Your task to perform on an android device: turn on data saver in the chrome app Image 0: 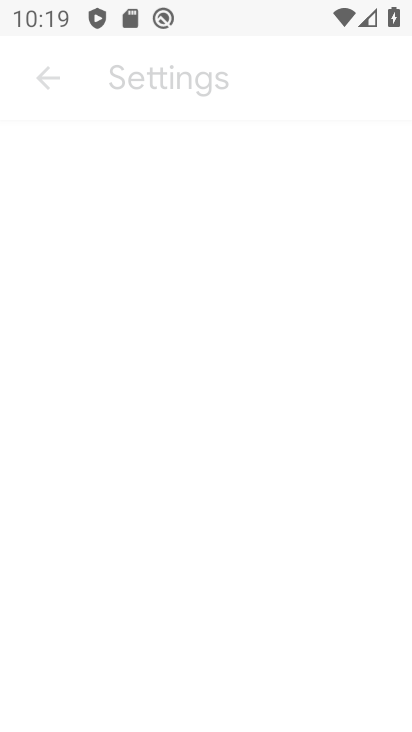
Step 0: drag from (168, 689) to (313, 143)
Your task to perform on an android device: turn on data saver in the chrome app Image 1: 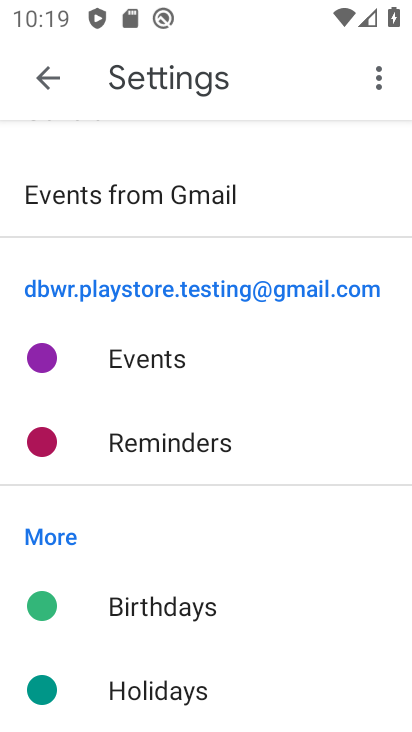
Step 1: press home button
Your task to perform on an android device: turn on data saver in the chrome app Image 2: 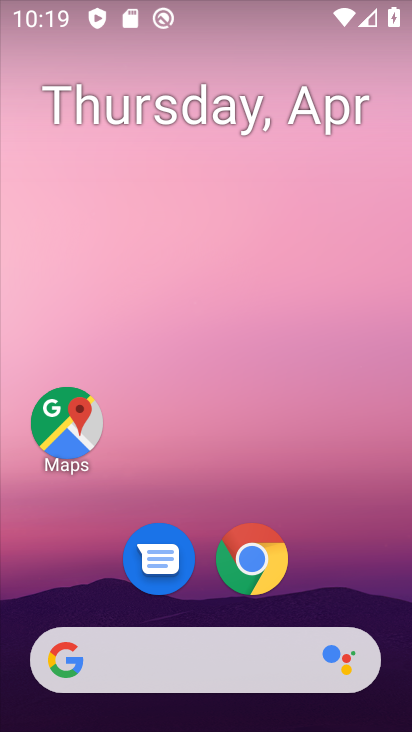
Step 2: drag from (196, 696) to (259, 5)
Your task to perform on an android device: turn on data saver in the chrome app Image 3: 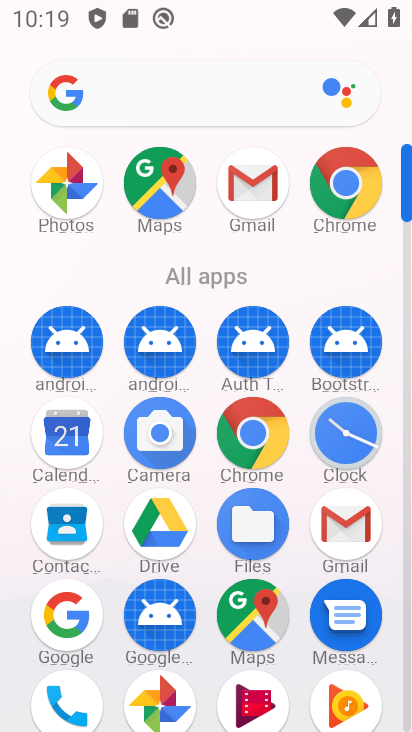
Step 3: click (367, 183)
Your task to perform on an android device: turn on data saver in the chrome app Image 4: 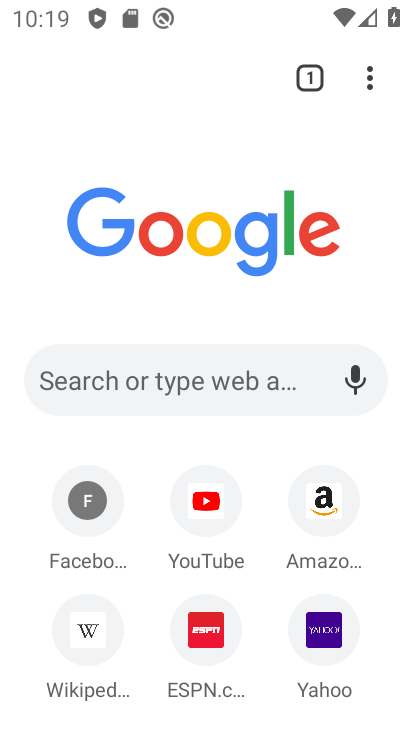
Step 4: click (363, 79)
Your task to perform on an android device: turn on data saver in the chrome app Image 5: 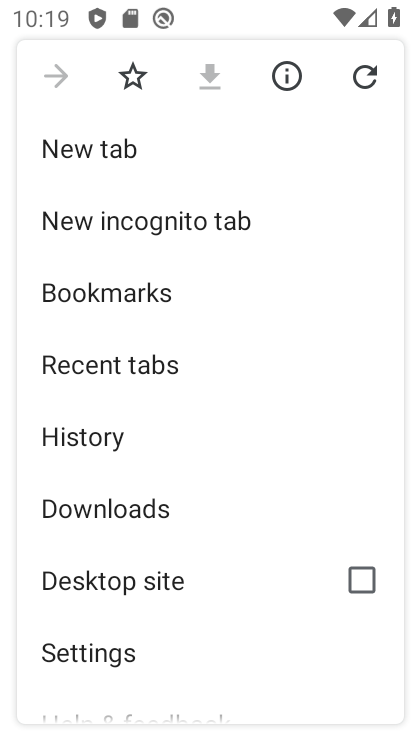
Step 5: click (100, 641)
Your task to perform on an android device: turn on data saver in the chrome app Image 6: 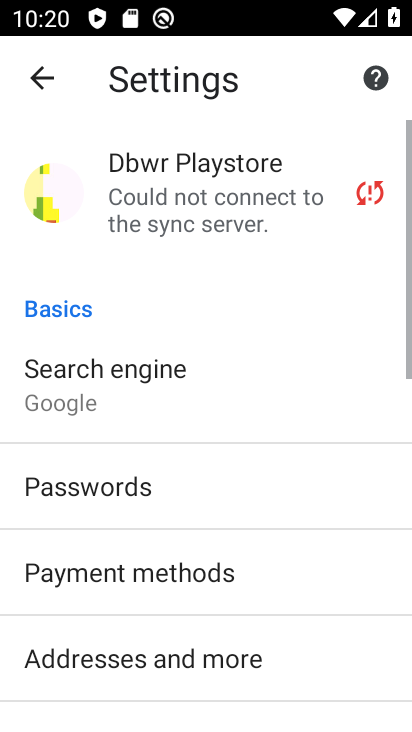
Step 6: drag from (100, 641) to (155, 190)
Your task to perform on an android device: turn on data saver in the chrome app Image 7: 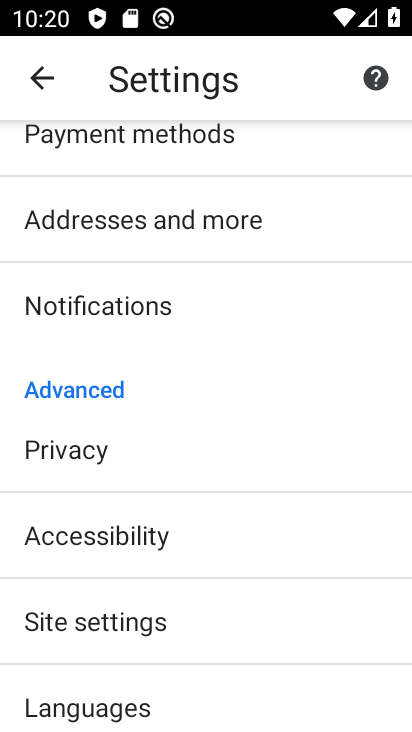
Step 7: drag from (98, 672) to (151, 471)
Your task to perform on an android device: turn on data saver in the chrome app Image 8: 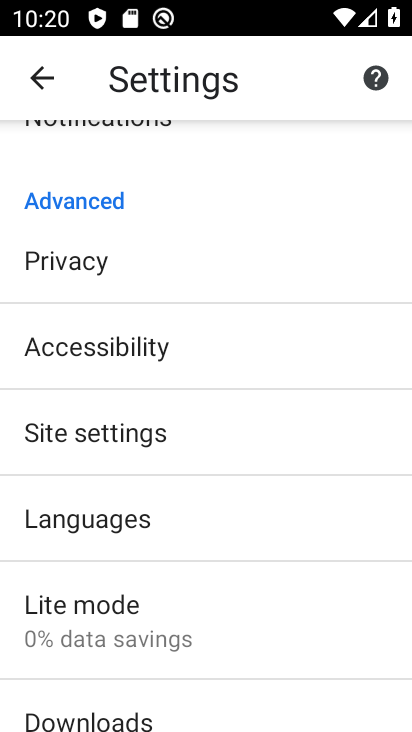
Step 8: click (69, 607)
Your task to perform on an android device: turn on data saver in the chrome app Image 9: 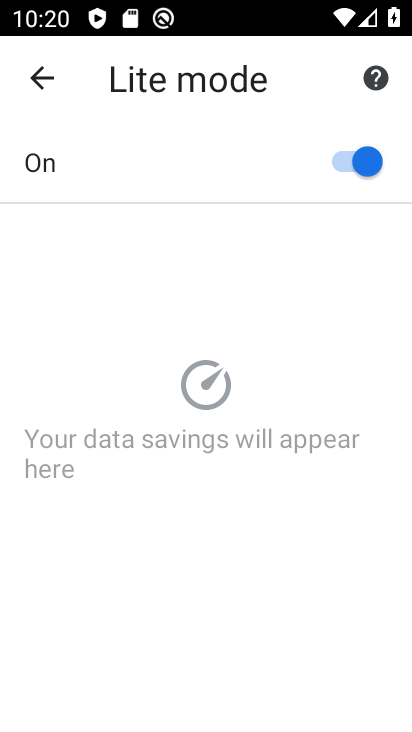
Step 9: task complete